Your task to perform on an android device: manage bookmarks in the chrome app Image 0: 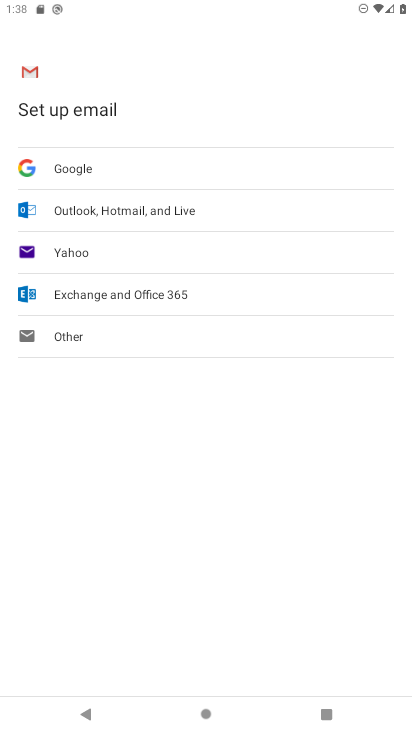
Step 0: press home button
Your task to perform on an android device: manage bookmarks in the chrome app Image 1: 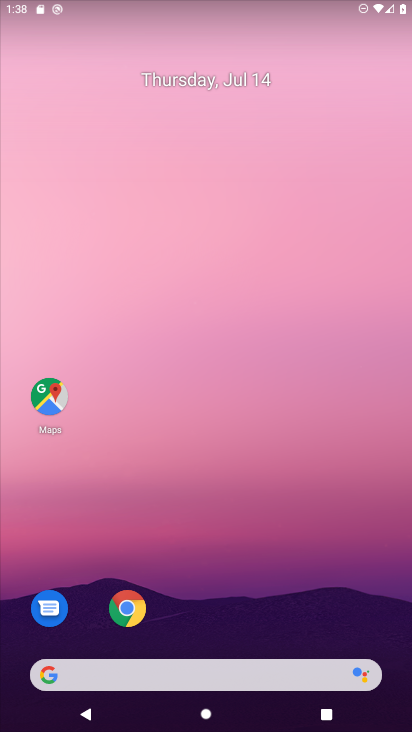
Step 1: click (233, 725)
Your task to perform on an android device: manage bookmarks in the chrome app Image 2: 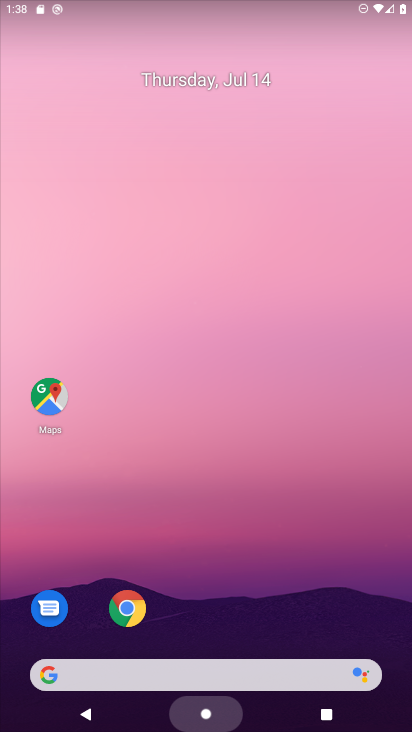
Step 2: drag from (204, 354) to (204, 34)
Your task to perform on an android device: manage bookmarks in the chrome app Image 3: 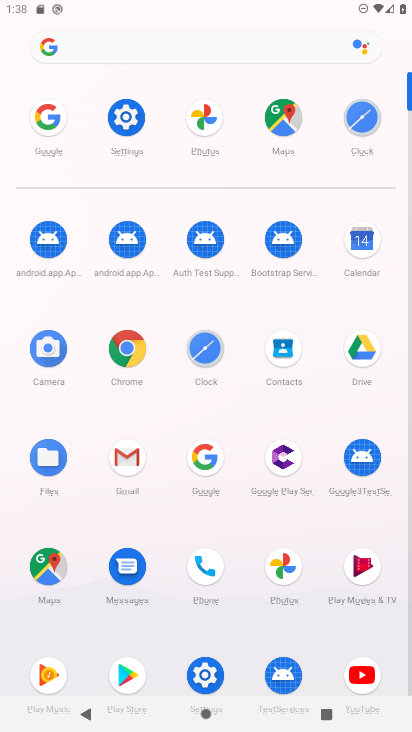
Step 3: click (129, 352)
Your task to perform on an android device: manage bookmarks in the chrome app Image 4: 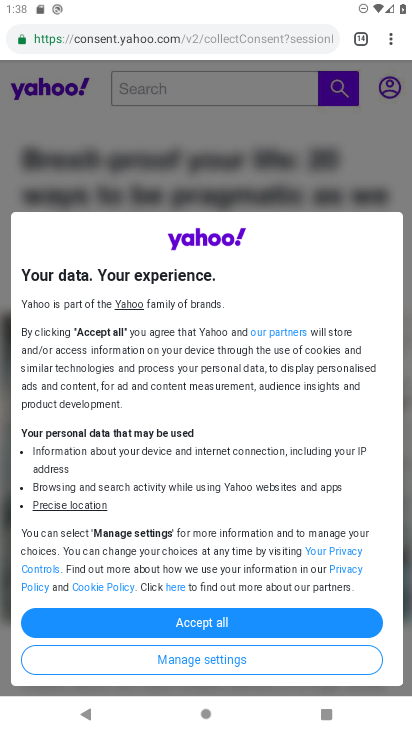
Step 4: click (393, 42)
Your task to perform on an android device: manage bookmarks in the chrome app Image 5: 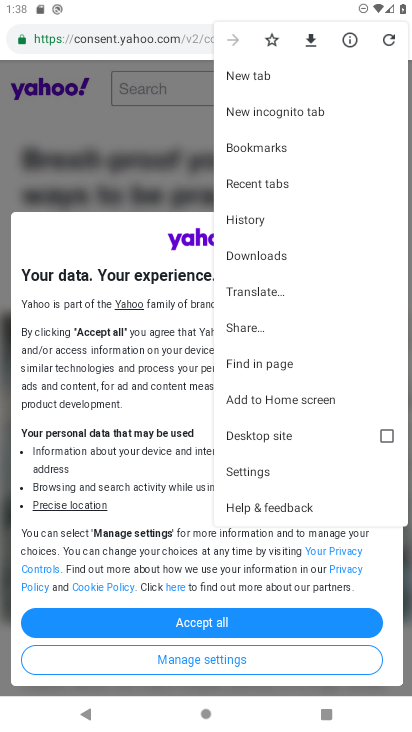
Step 5: click (246, 145)
Your task to perform on an android device: manage bookmarks in the chrome app Image 6: 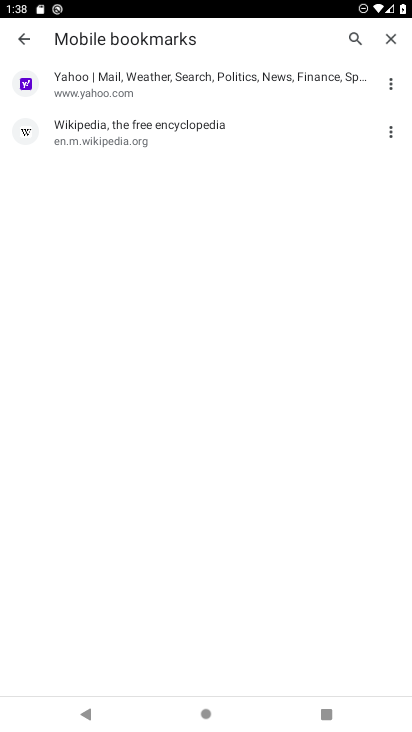
Step 6: click (390, 91)
Your task to perform on an android device: manage bookmarks in the chrome app Image 7: 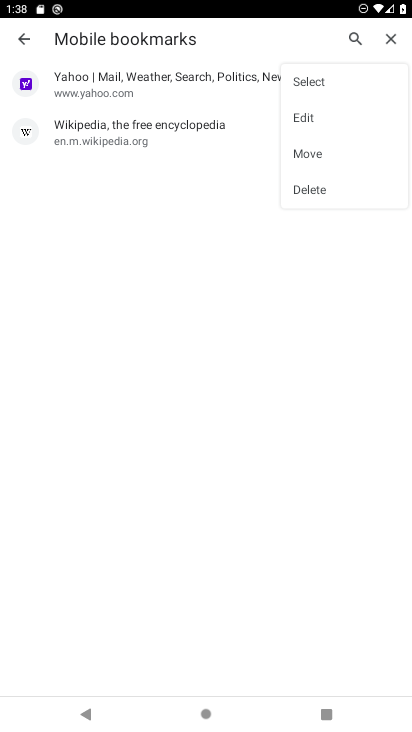
Step 7: click (306, 113)
Your task to perform on an android device: manage bookmarks in the chrome app Image 8: 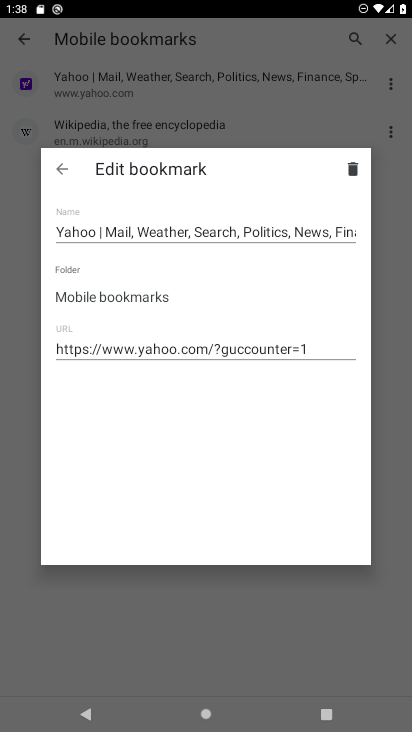
Step 8: click (164, 230)
Your task to perform on an android device: manage bookmarks in the chrome app Image 9: 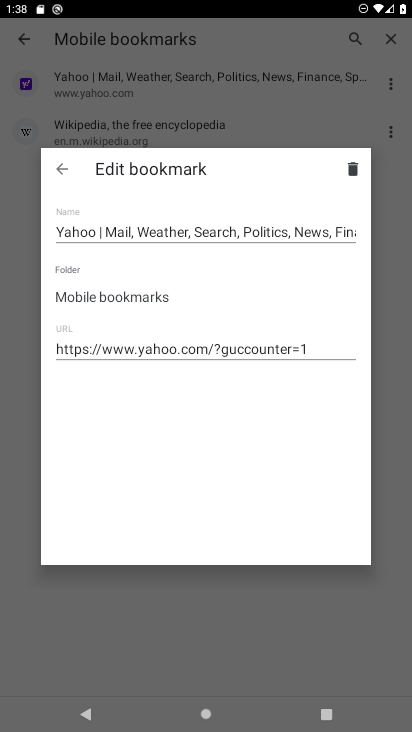
Step 9: click (164, 230)
Your task to perform on an android device: manage bookmarks in the chrome app Image 10: 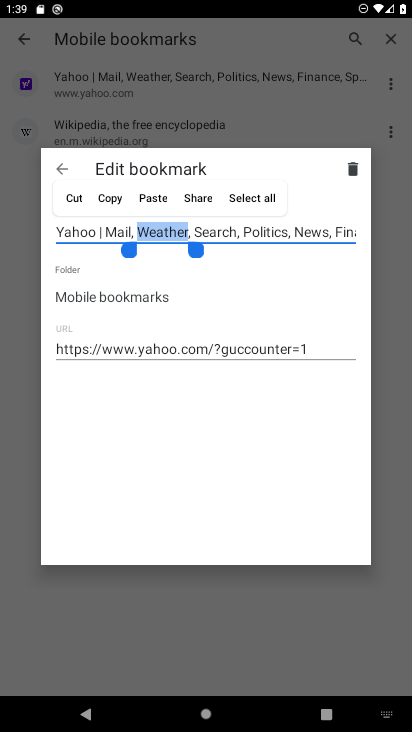
Step 10: click (73, 198)
Your task to perform on an android device: manage bookmarks in the chrome app Image 11: 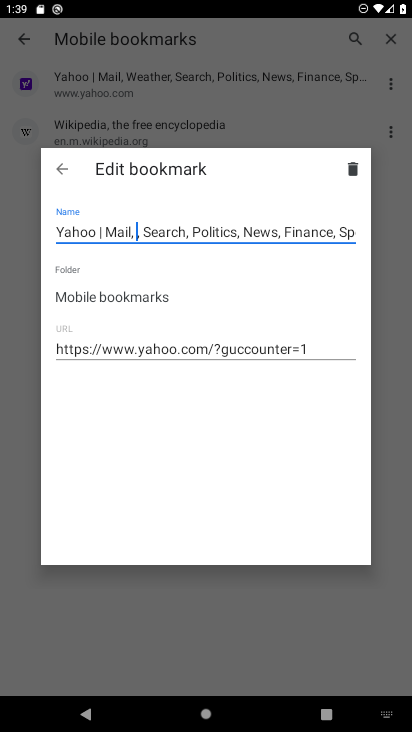
Step 11: click (58, 169)
Your task to perform on an android device: manage bookmarks in the chrome app Image 12: 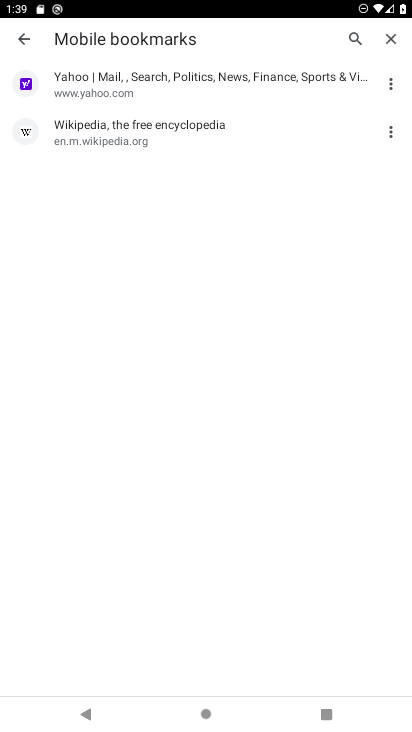
Step 12: task complete